Your task to perform on an android device: Go to Maps Image 0: 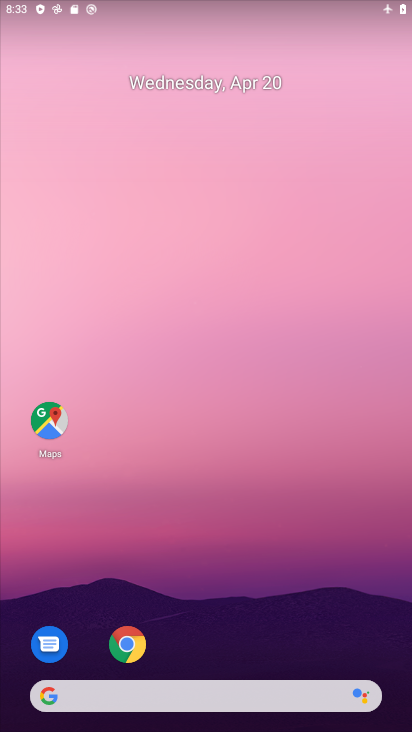
Step 0: drag from (347, 628) to (253, 141)
Your task to perform on an android device: Go to Maps Image 1: 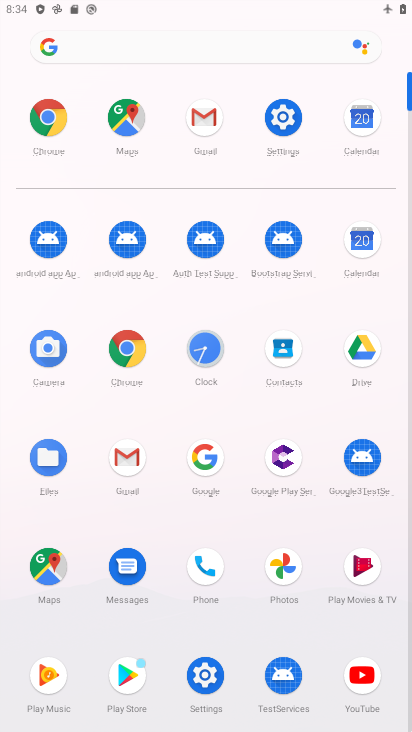
Step 1: click (45, 559)
Your task to perform on an android device: Go to Maps Image 2: 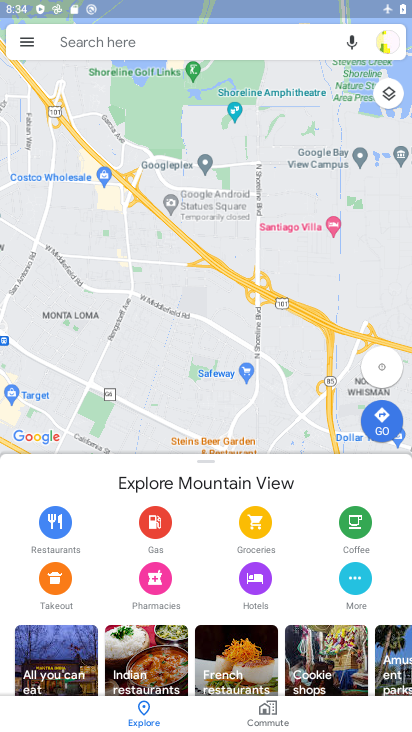
Step 2: task complete